Your task to perform on an android device: Show me popular videos on Youtube Image 0: 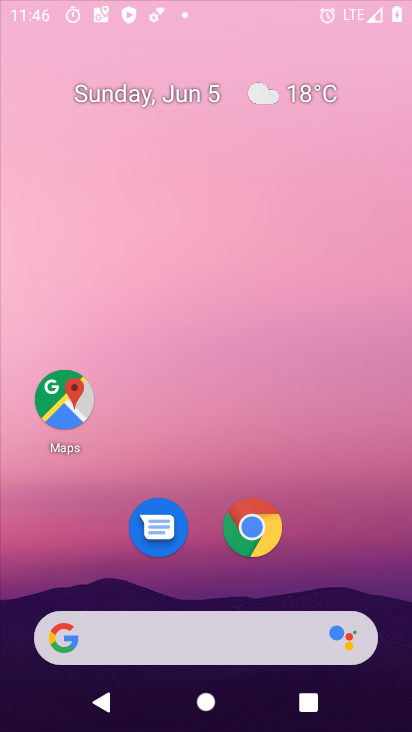
Step 0: click (300, 63)
Your task to perform on an android device: Show me popular videos on Youtube Image 1: 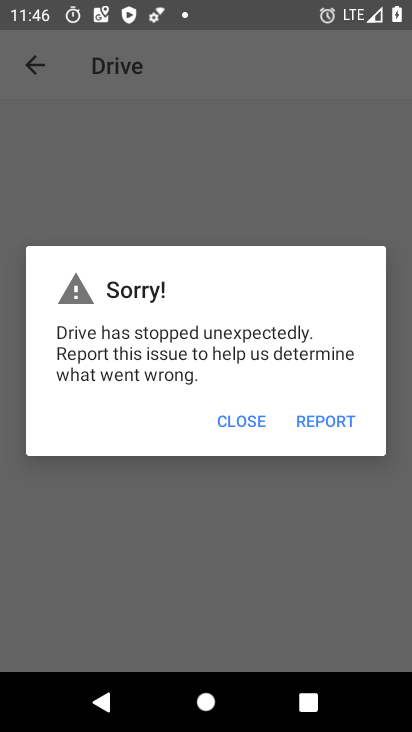
Step 1: press home button
Your task to perform on an android device: Show me popular videos on Youtube Image 2: 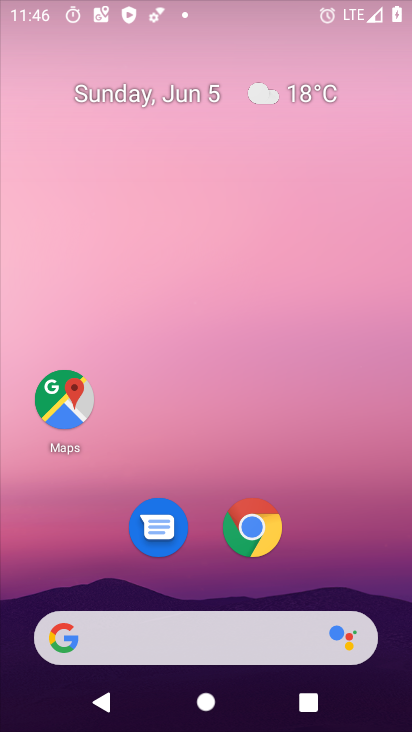
Step 2: drag from (389, 516) to (365, 34)
Your task to perform on an android device: Show me popular videos on Youtube Image 3: 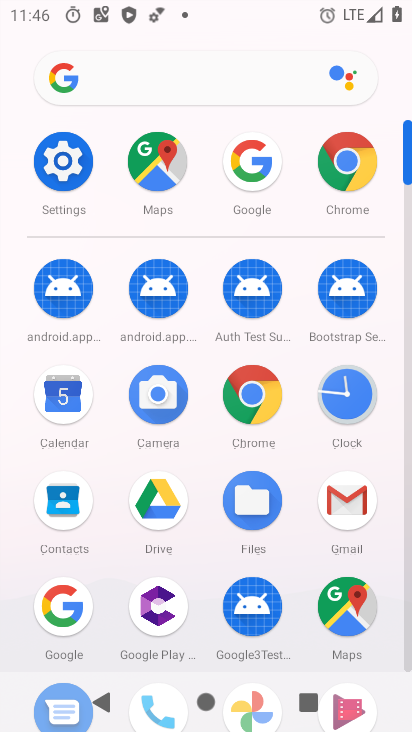
Step 3: drag from (119, 644) to (206, 61)
Your task to perform on an android device: Show me popular videos on Youtube Image 4: 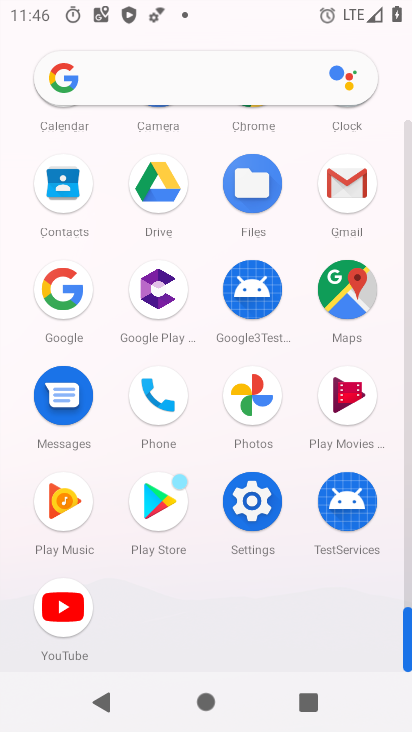
Step 4: click (72, 616)
Your task to perform on an android device: Show me popular videos on Youtube Image 5: 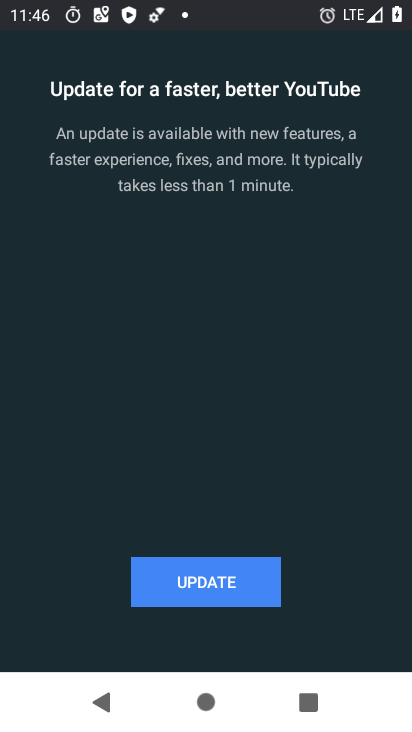
Step 5: click (187, 582)
Your task to perform on an android device: Show me popular videos on Youtube Image 6: 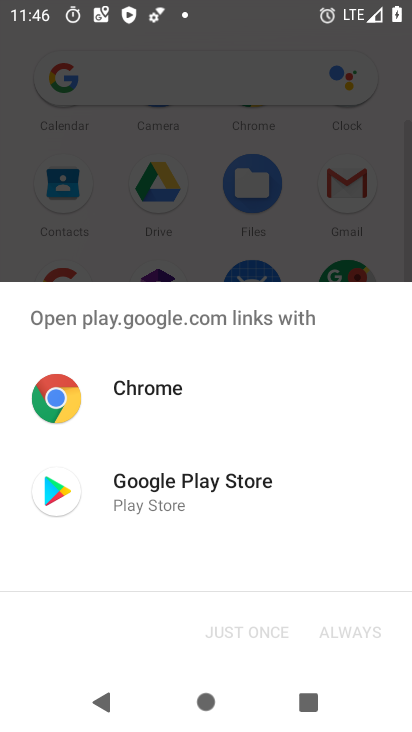
Step 6: click (160, 485)
Your task to perform on an android device: Show me popular videos on Youtube Image 7: 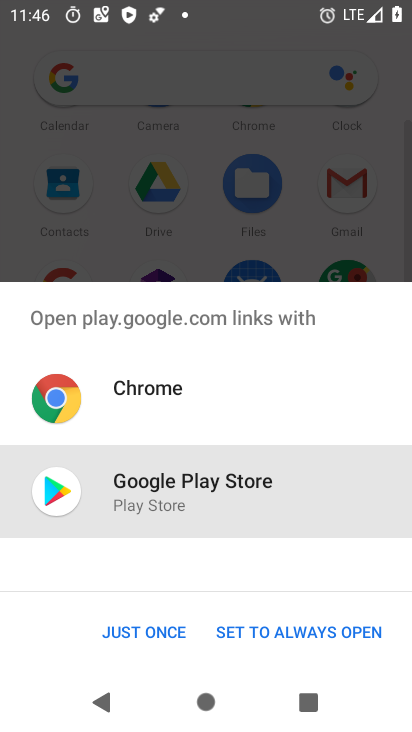
Step 7: click (136, 626)
Your task to perform on an android device: Show me popular videos on Youtube Image 8: 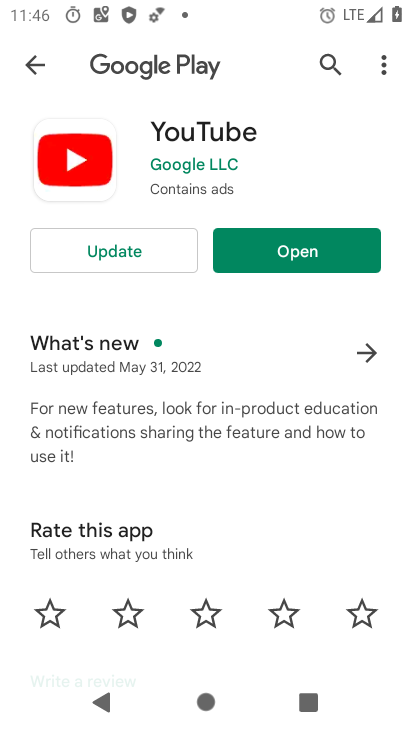
Step 8: click (116, 241)
Your task to perform on an android device: Show me popular videos on Youtube Image 9: 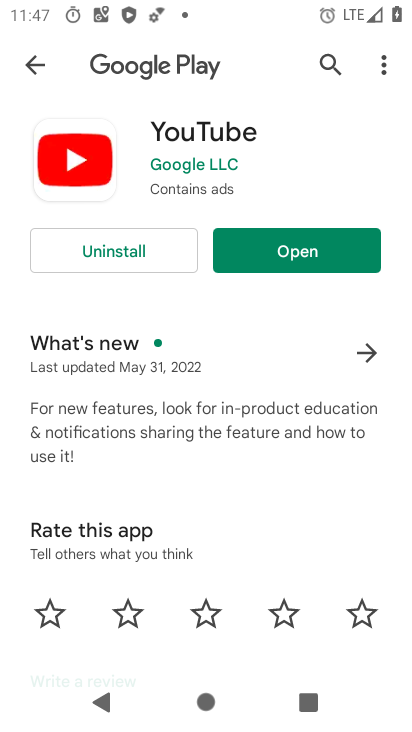
Step 9: click (280, 245)
Your task to perform on an android device: Show me popular videos on Youtube Image 10: 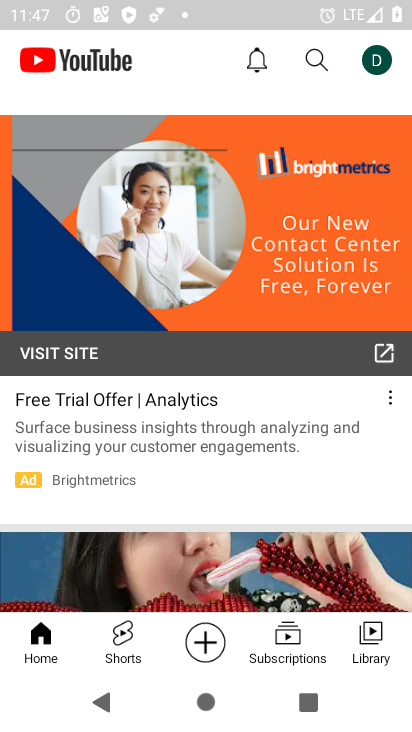
Step 10: drag from (183, 152) to (148, 578)
Your task to perform on an android device: Show me popular videos on Youtube Image 11: 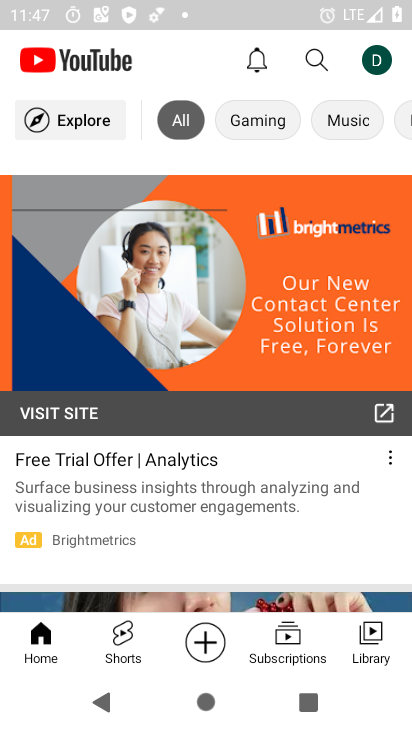
Step 11: click (77, 119)
Your task to perform on an android device: Show me popular videos on Youtube Image 12: 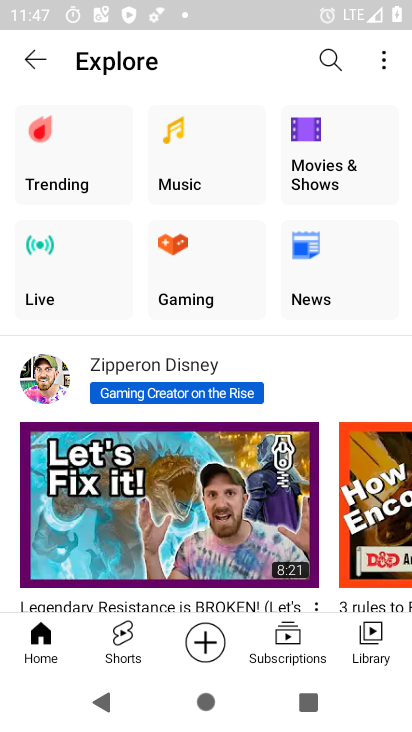
Step 12: click (63, 142)
Your task to perform on an android device: Show me popular videos on Youtube Image 13: 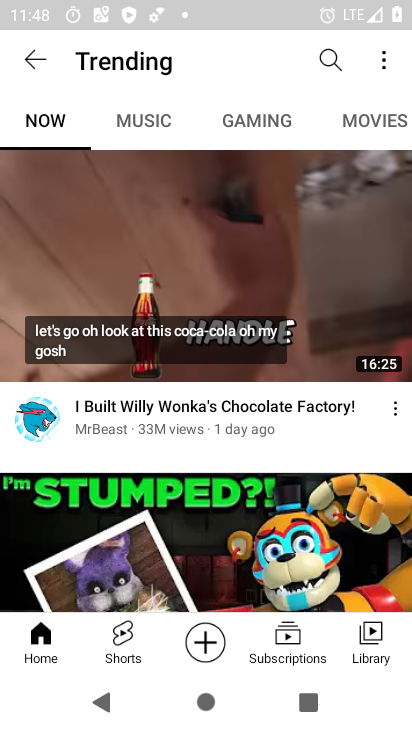
Step 13: task complete